Your task to perform on an android device: open app "Viber Messenger" (install if not already installed) and enter user name: "blameless@icloud.com" and password: "Yoknapatawpha" Image 0: 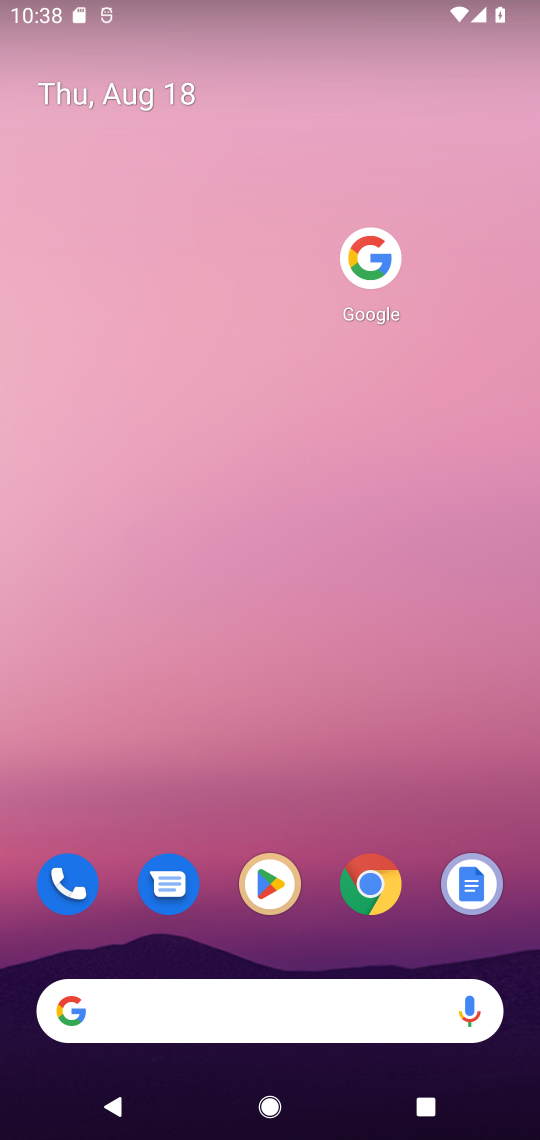
Step 0: click (285, 901)
Your task to perform on an android device: open app "Viber Messenger" (install if not already installed) and enter user name: "blameless@icloud.com" and password: "Yoknapatawpha" Image 1: 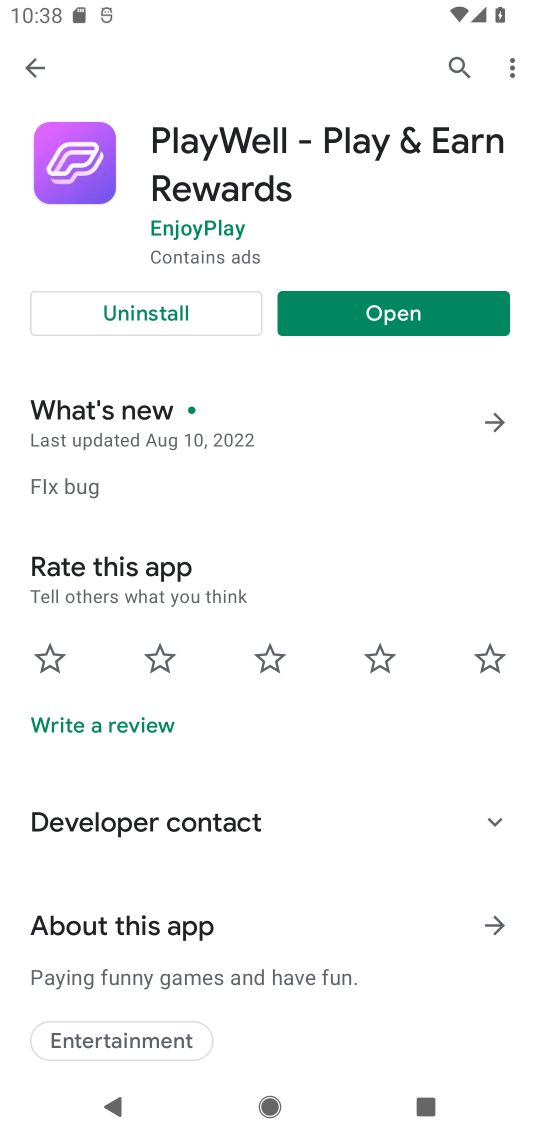
Step 1: click (451, 65)
Your task to perform on an android device: open app "Viber Messenger" (install if not already installed) and enter user name: "blameless@icloud.com" and password: "Yoknapatawpha" Image 2: 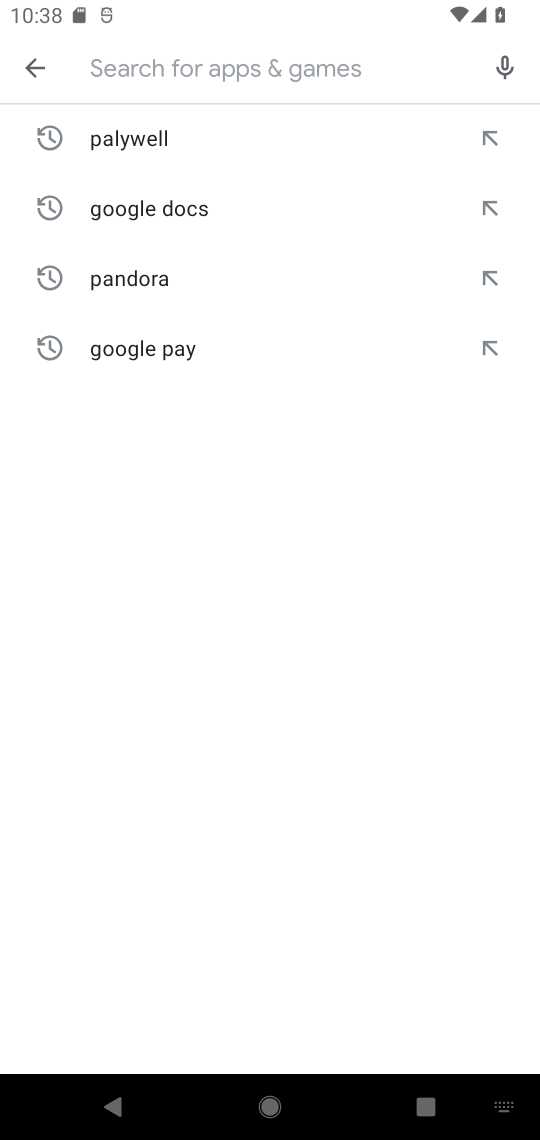
Step 2: type "viber"
Your task to perform on an android device: open app "Viber Messenger" (install if not already installed) and enter user name: "blameless@icloud.com" and password: "Yoknapatawpha" Image 3: 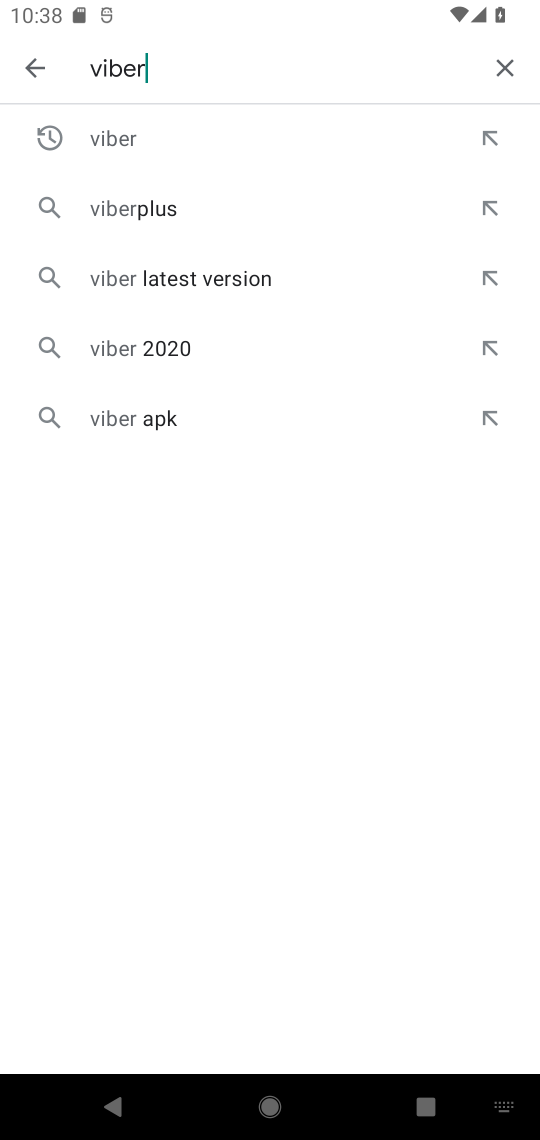
Step 3: click (178, 146)
Your task to perform on an android device: open app "Viber Messenger" (install if not already installed) and enter user name: "blameless@icloud.com" and password: "Yoknapatawpha" Image 4: 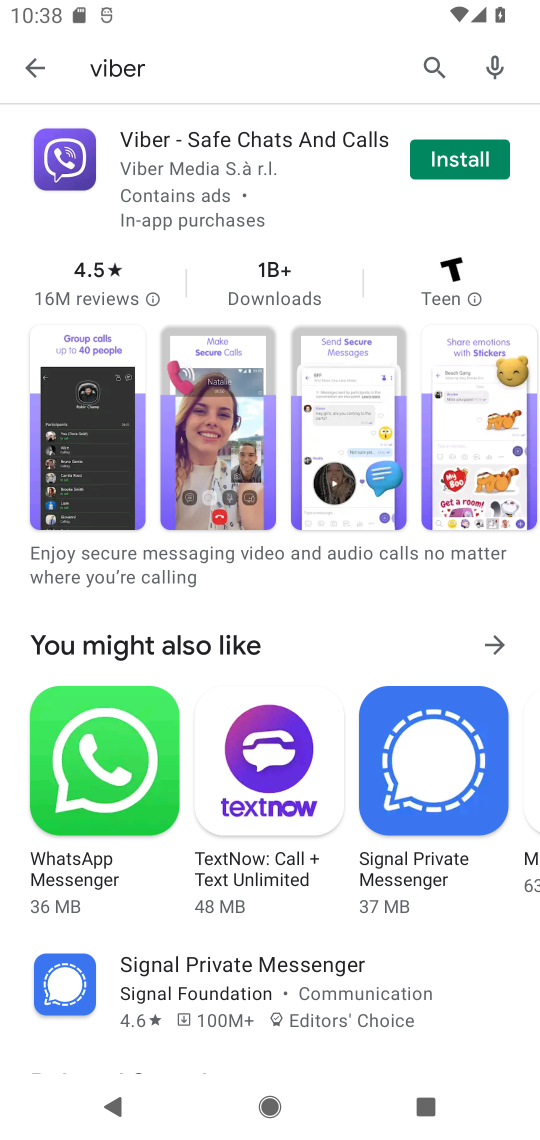
Step 4: click (460, 165)
Your task to perform on an android device: open app "Viber Messenger" (install if not already installed) and enter user name: "blameless@icloud.com" and password: "Yoknapatawpha" Image 5: 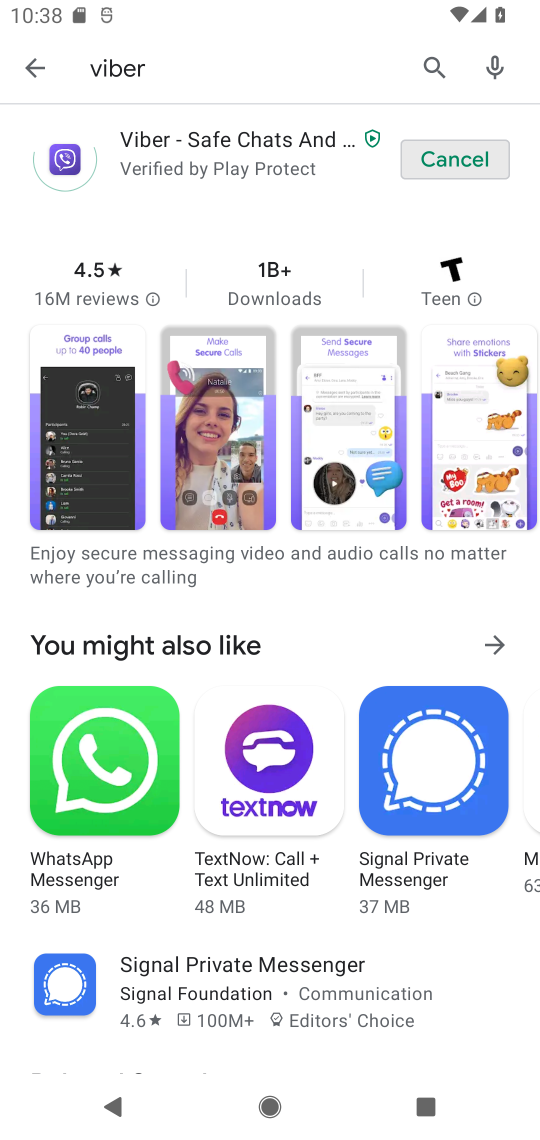
Step 5: task complete